Your task to perform on an android device: Open CNN.com Image 0: 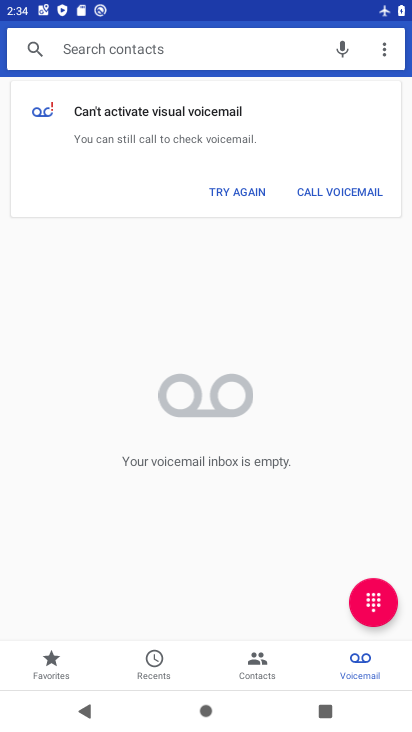
Step 0: press home button
Your task to perform on an android device: Open CNN.com Image 1: 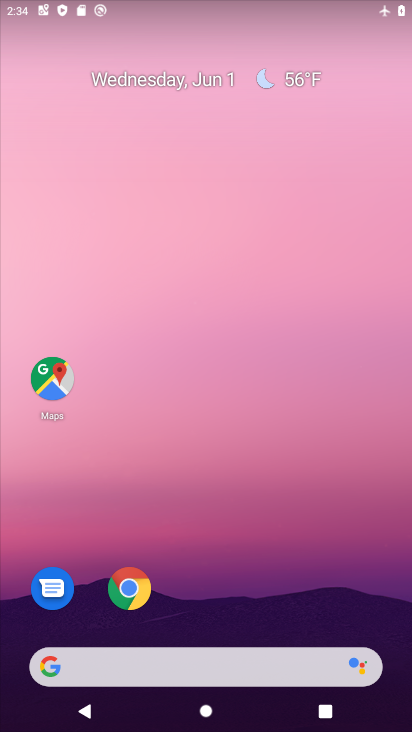
Step 1: click (131, 583)
Your task to perform on an android device: Open CNN.com Image 2: 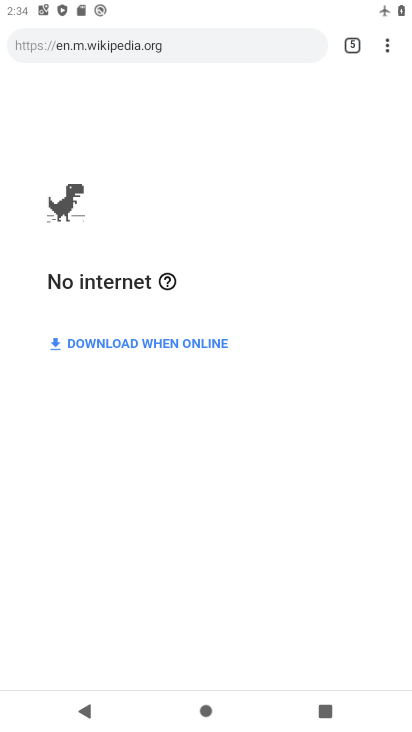
Step 2: click (353, 44)
Your task to perform on an android device: Open CNN.com Image 3: 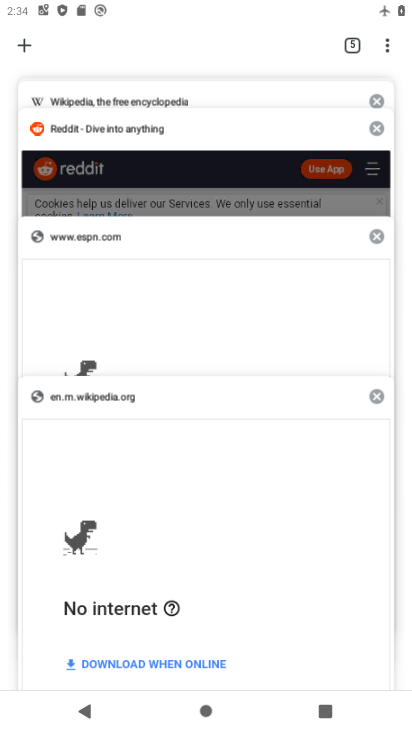
Step 3: click (29, 40)
Your task to perform on an android device: Open CNN.com Image 4: 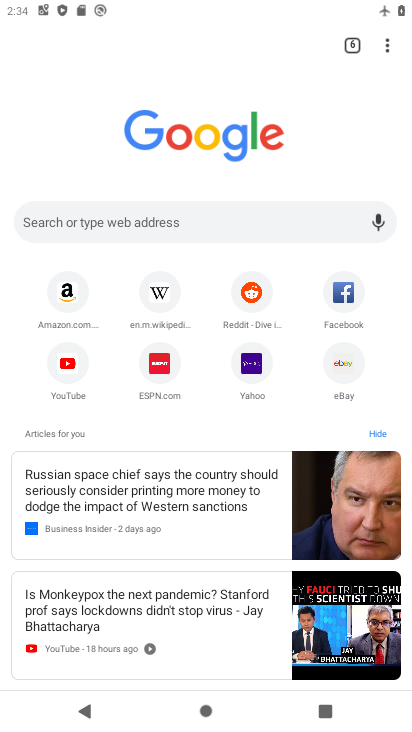
Step 4: press home button
Your task to perform on an android device: Open CNN.com Image 5: 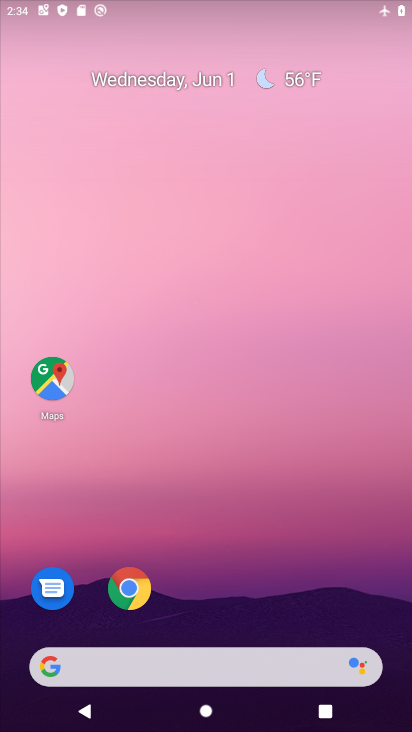
Step 5: drag from (250, 262) to (168, 0)
Your task to perform on an android device: Open CNN.com Image 6: 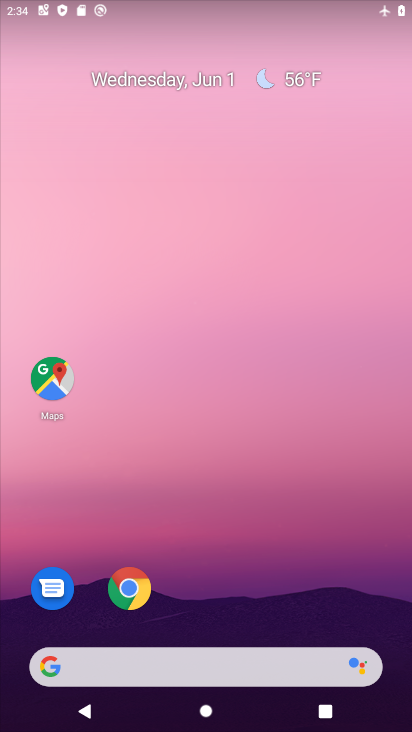
Step 6: click (203, 6)
Your task to perform on an android device: Open CNN.com Image 7: 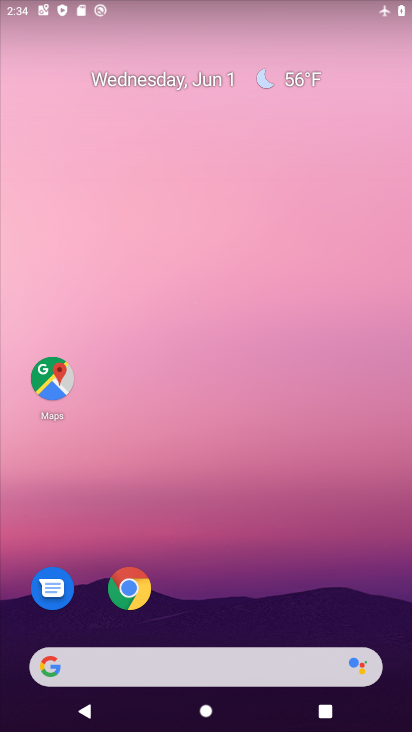
Step 7: drag from (298, 428) to (157, 27)
Your task to perform on an android device: Open CNN.com Image 8: 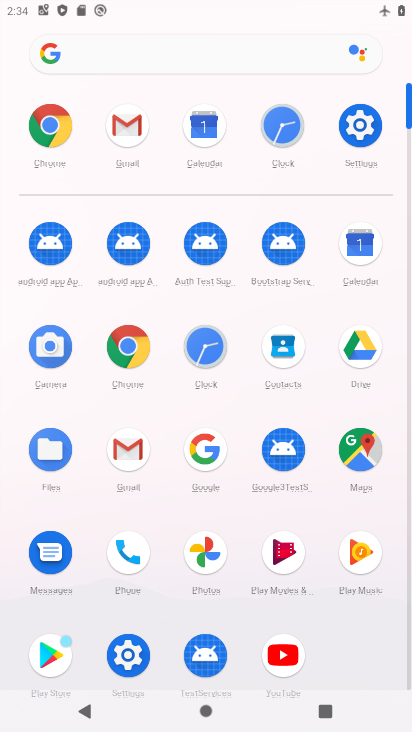
Step 8: click (383, 120)
Your task to perform on an android device: Open CNN.com Image 9: 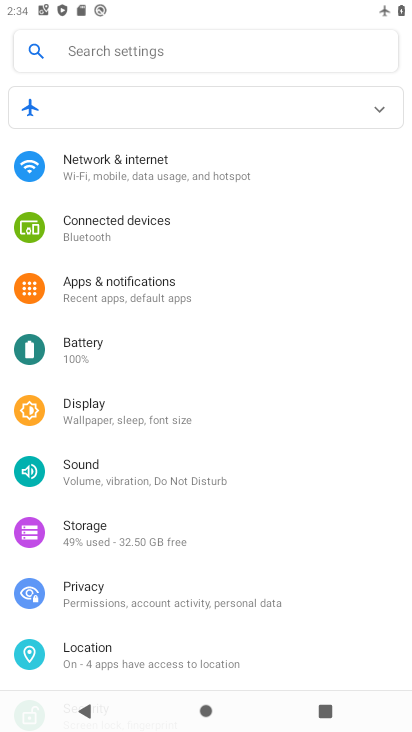
Step 9: click (150, 172)
Your task to perform on an android device: Open CNN.com Image 10: 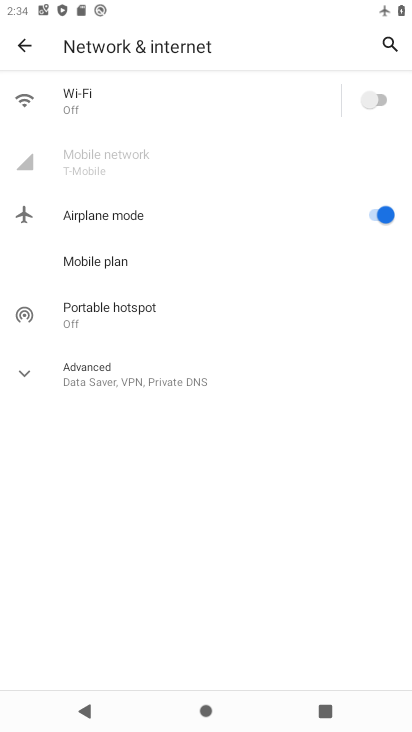
Step 10: click (373, 88)
Your task to perform on an android device: Open CNN.com Image 11: 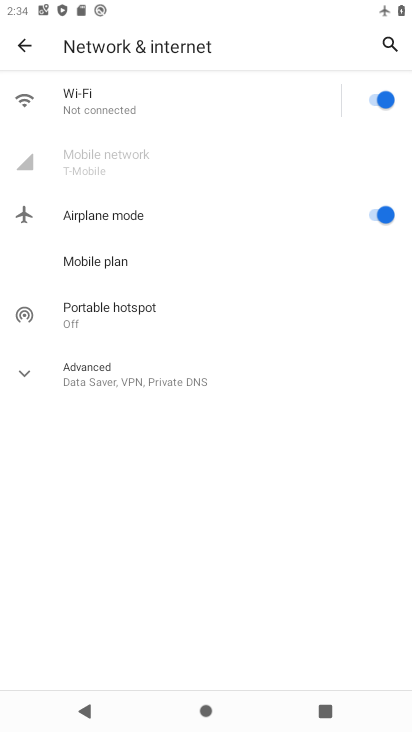
Step 11: press home button
Your task to perform on an android device: Open CNN.com Image 12: 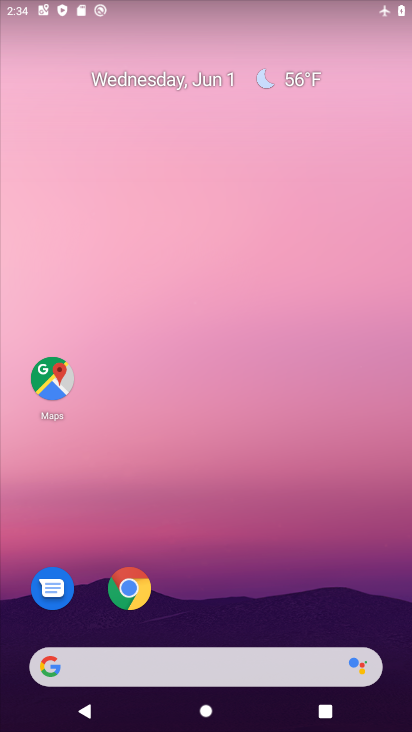
Step 12: click (121, 594)
Your task to perform on an android device: Open CNN.com Image 13: 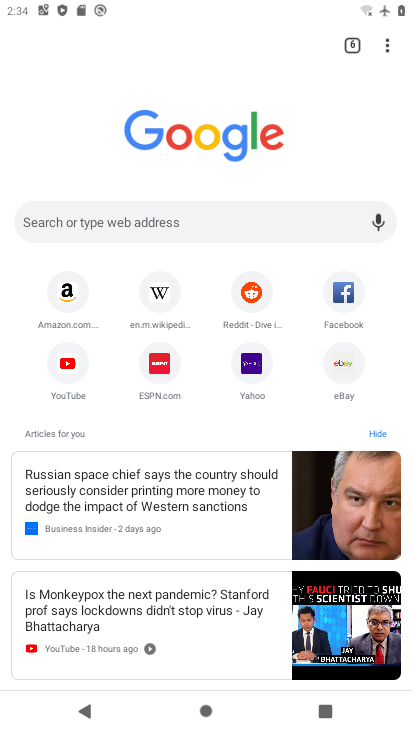
Step 13: click (185, 220)
Your task to perform on an android device: Open CNN.com Image 14: 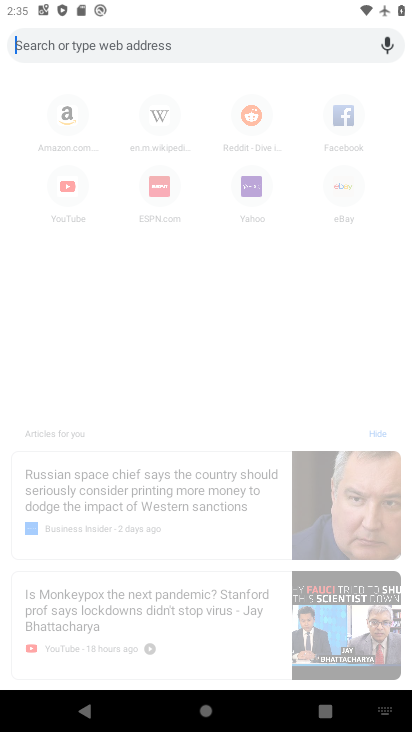
Step 14: type "CNN.com"
Your task to perform on an android device: Open CNN.com Image 15: 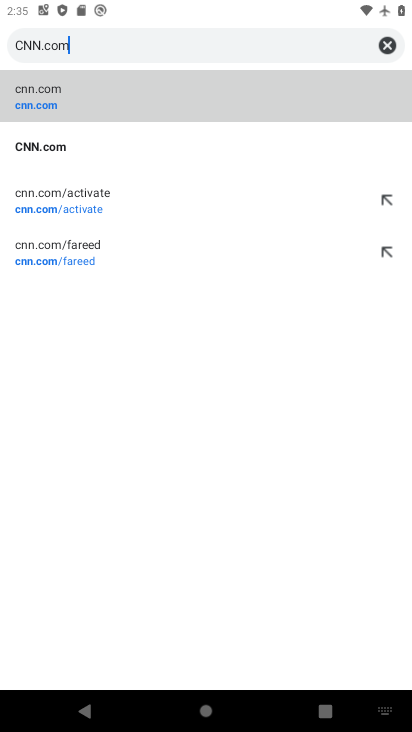
Step 15: click (202, 102)
Your task to perform on an android device: Open CNN.com Image 16: 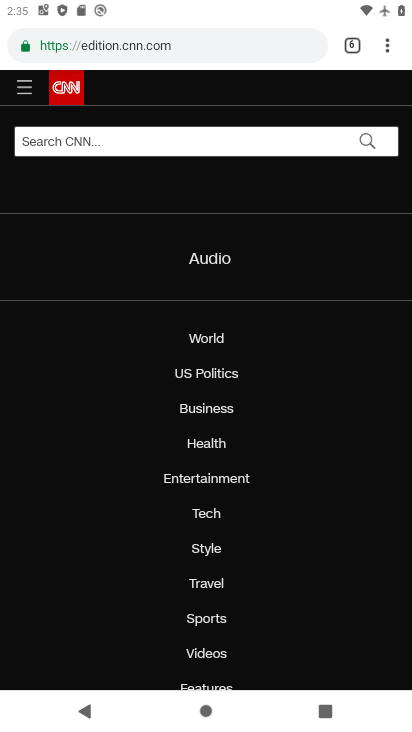
Step 16: task complete